Your task to perform on an android device: open the mobile data screen to see how much data has been used Image 0: 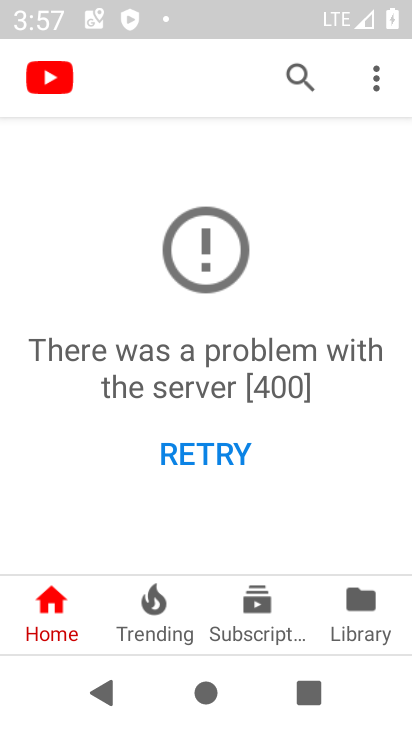
Step 0: press home button
Your task to perform on an android device: open the mobile data screen to see how much data has been used Image 1: 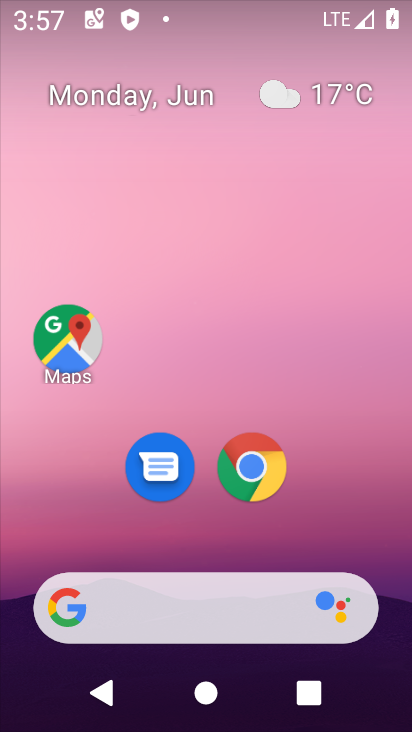
Step 1: drag from (223, 537) to (266, 17)
Your task to perform on an android device: open the mobile data screen to see how much data has been used Image 2: 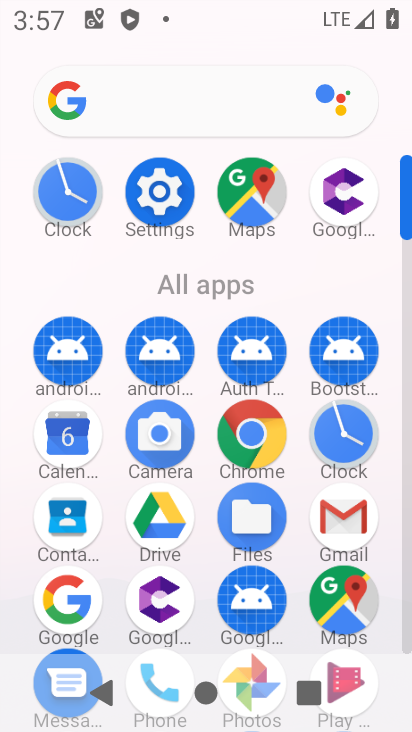
Step 2: click (169, 202)
Your task to perform on an android device: open the mobile data screen to see how much data has been used Image 3: 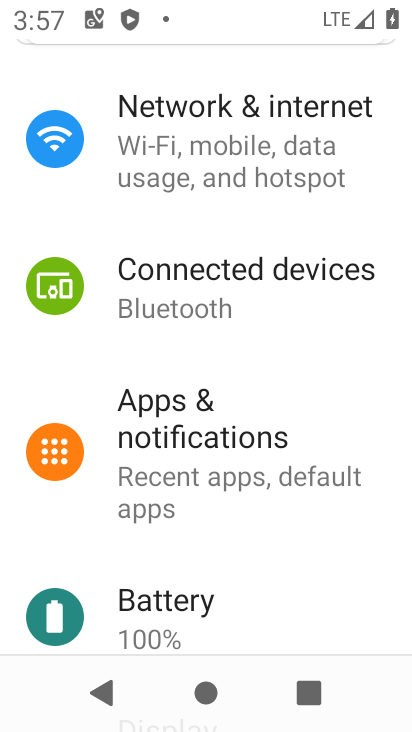
Step 3: click (229, 163)
Your task to perform on an android device: open the mobile data screen to see how much data has been used Image 4: 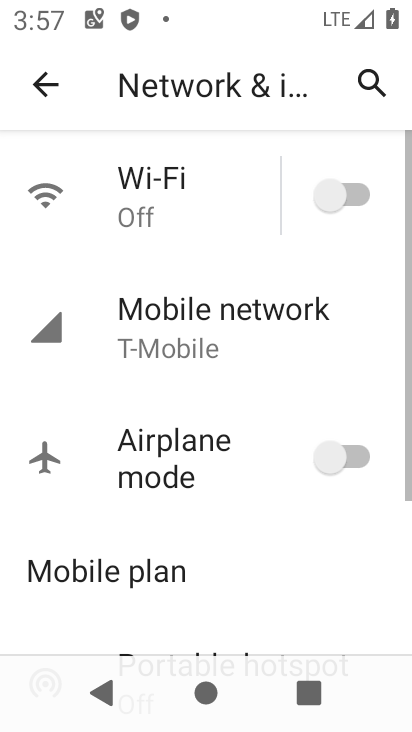
Step 4: click (201, 315)
Your task to perform on an android device: open the mobile data screen to see how much data has been used Image 5: 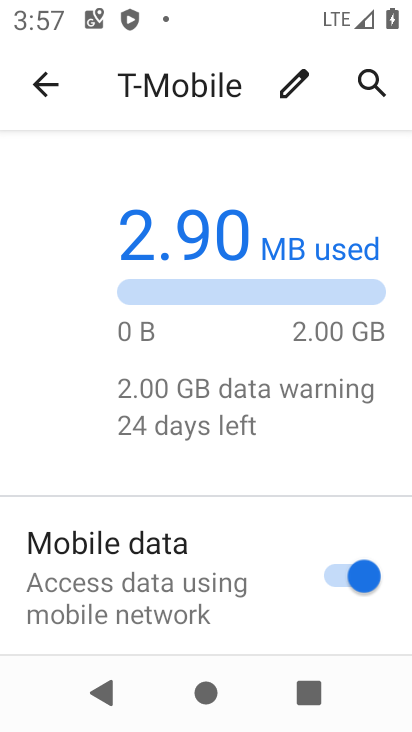
Step 5: drag from (188, 588) to (238, 182)
Your task to perform on an android device: open the mobile data screen to see how much data has been used Image 6: 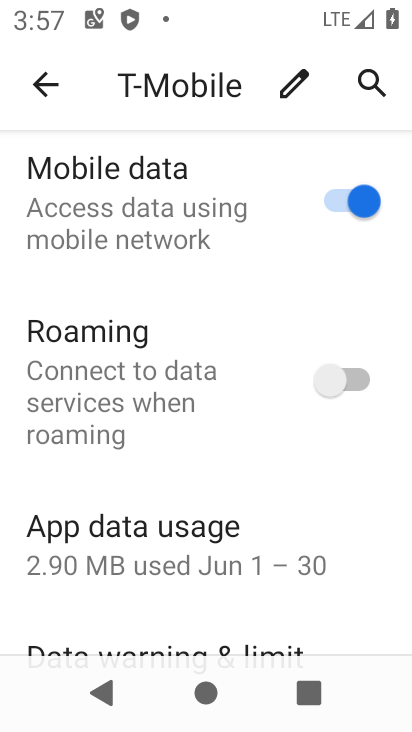
Step 6: click (182, 524)
Your task to perform on an android device: open the mobile data screen to see how much data has been used Image 7: 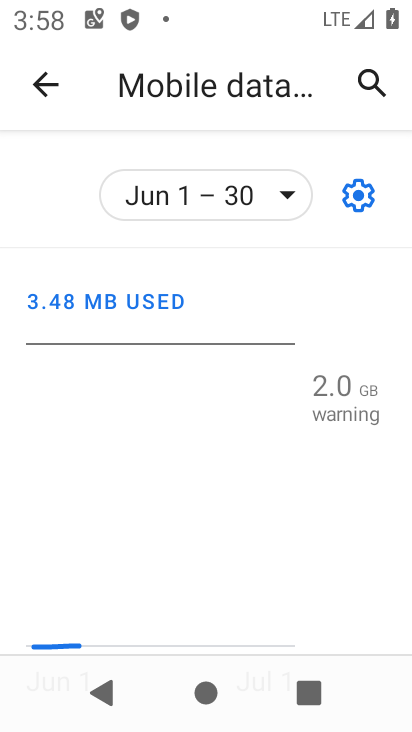
Step 7: task complete